Your task to perform on an android device: Go to ESPN.com Image 0: 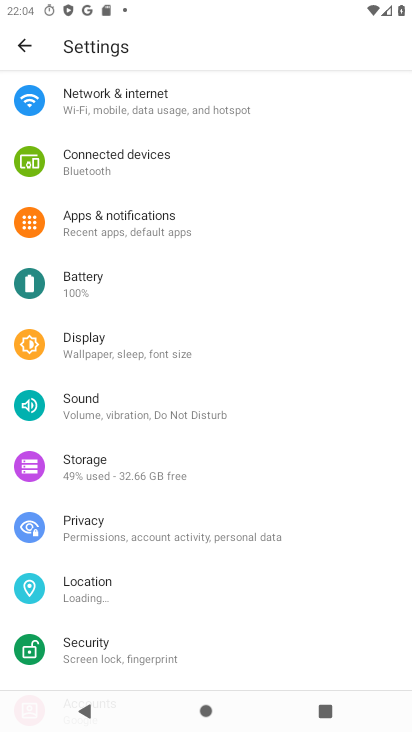
Step 0: press home button
Your task to perform on an android device: Go to ESPN.com Image 1: 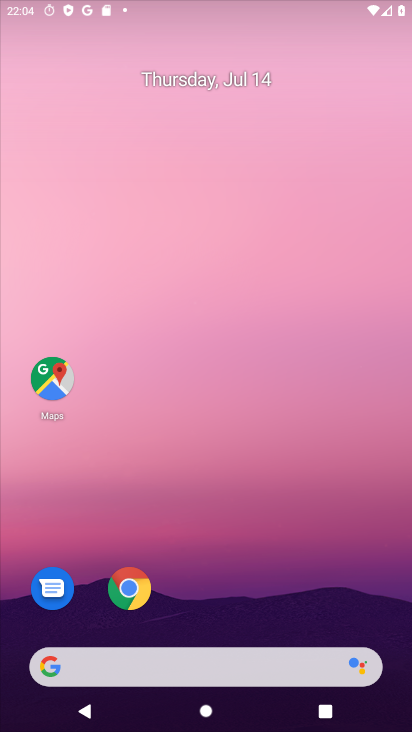
Step 1: drag from (223, 591) to (228, 116)
Your task to perform on an android device: Go to ESPN.com Image 2: 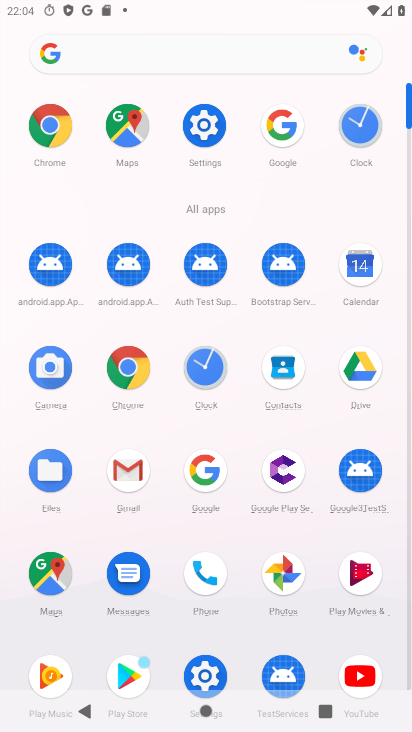
Step 2: click (204, 474)
Your task to perform on an android device: Go to ESPN.com Image 3: 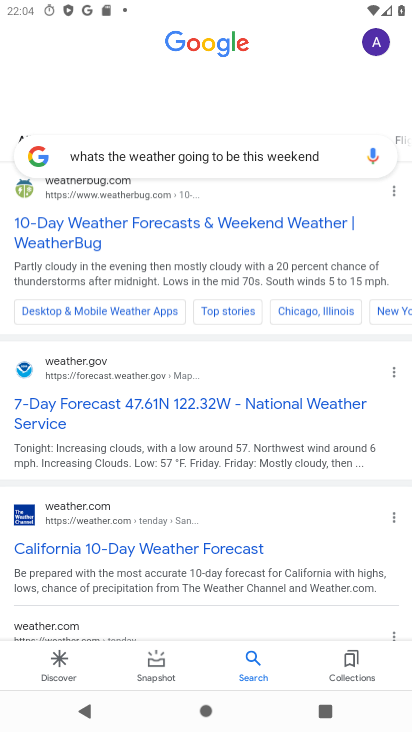
Step 3: click (309, 166)
Your task to perform on an android device: Go to ESPN.com Image 4: 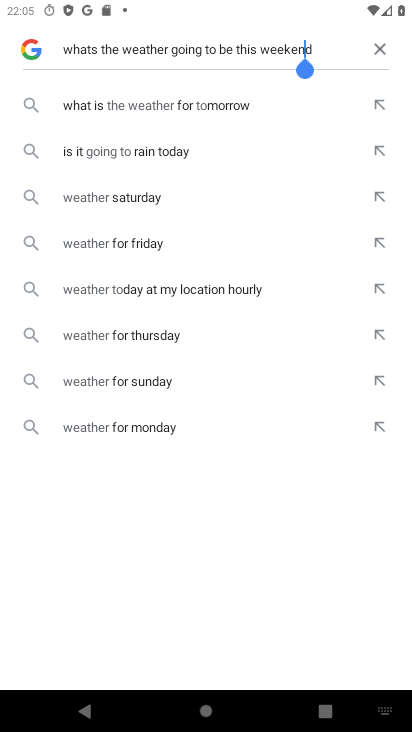
Step 4: click (374, 47)
Your task to perform on an android device: Go to ESPN.com Image 5: 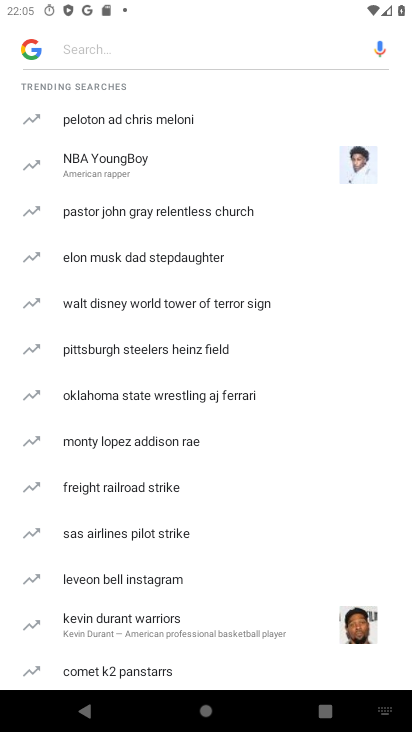
Step 5: type "espn.com"
Your task to perform on an android device: Go to ESPN.com Image 6: 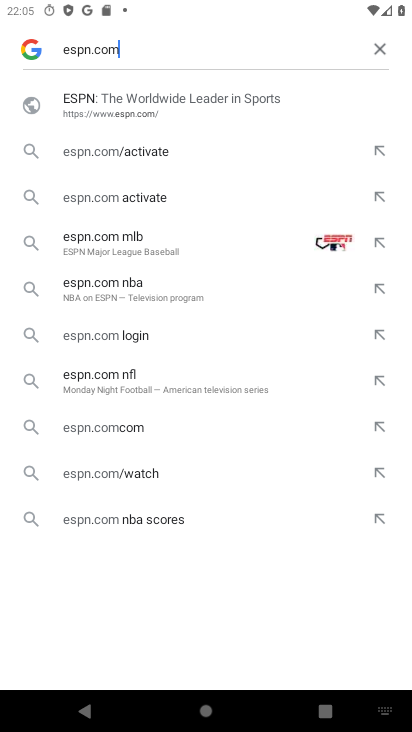
Step 6: click (122, 105)
Your task to perform on an android device: Go to ESPN.com Image 7: 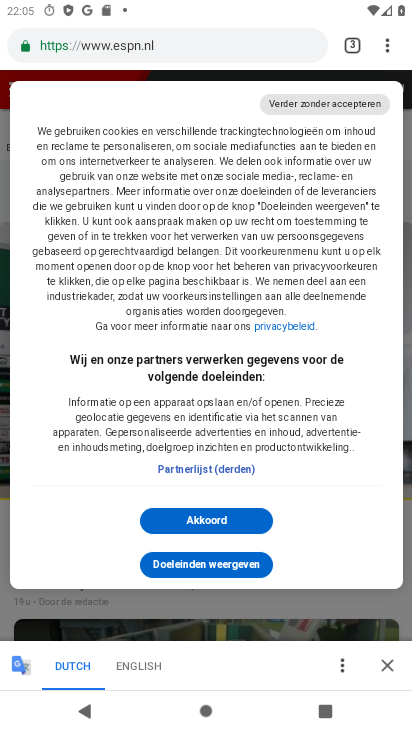
Step 7: task complete